Your task to perform on an android device: Open Google Maps Image 0: 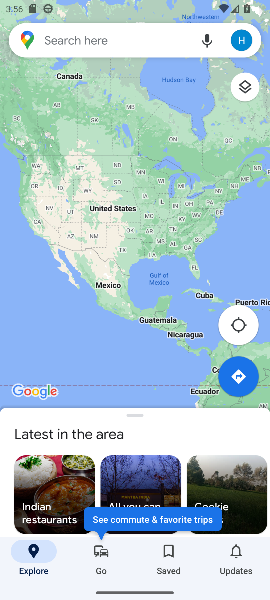
Step 0: press home button
Your task to perform on an android device: Open Google Maps Image 1: 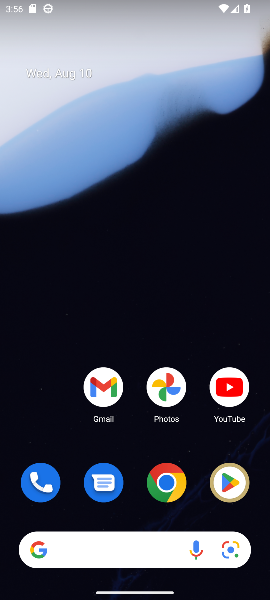
Step 1: drag from (132, 507) to (167, 83)
Your task to perform on an android device: Open Google Maps Image 2: 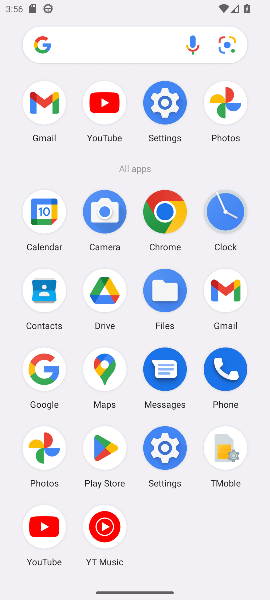
Step 2: click (42, 451)
Your task to perform on an android device: Open Google Maps Image 3: 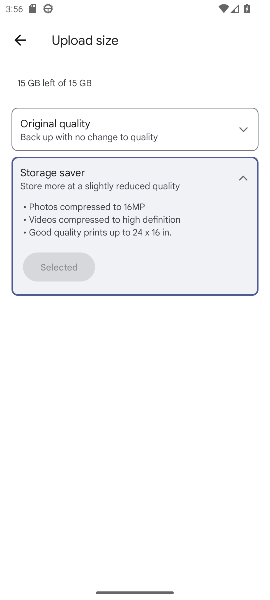
Step 3: click (24, 39)
Your task to perform on an android device: Open Google Maps Image 4: 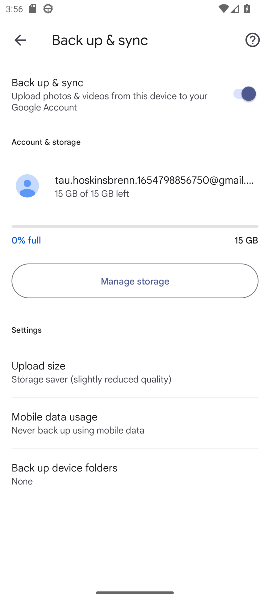
Step 4: click (24, 39)
Your task to perform on an android device: Open Google Maps Image 5: 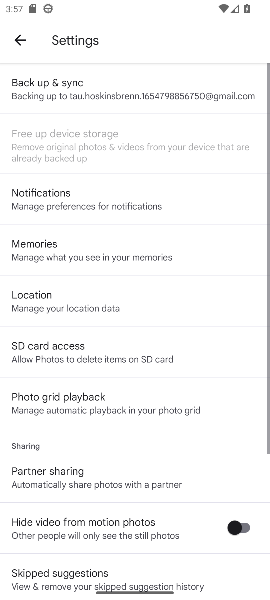
Step 5: click (24, 39)
Your task to perform on an android device: Open Google Maps Image 6: 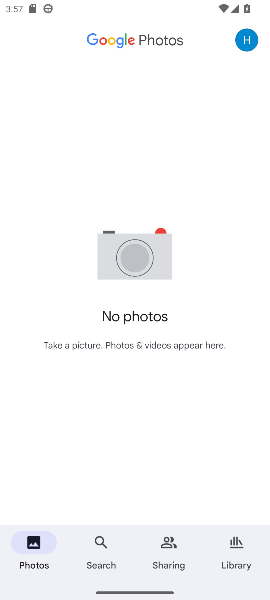
Step 6: press home button
Your task to perform on an android device: Open Google Maps Image 7: 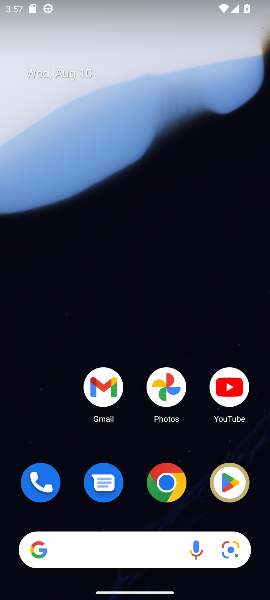
Step 7: drag from (134, 507) to (195, 92)
Your task to perform on an android device: Open Google Maps Image 8: 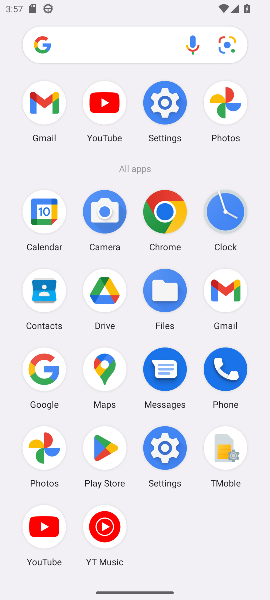
Step 8: click (101, 366)
Your task to perform on an android device: Open Google Maps Image 9: 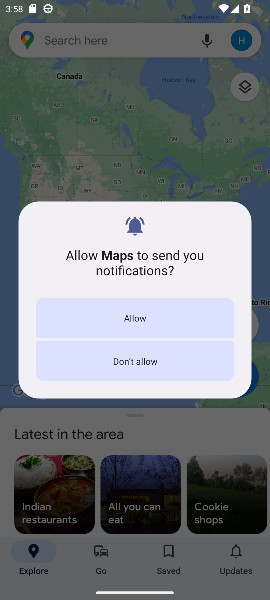
Step 9: click (139, 323)
Your task to perform on an android device: Open Google Maps Image 10: 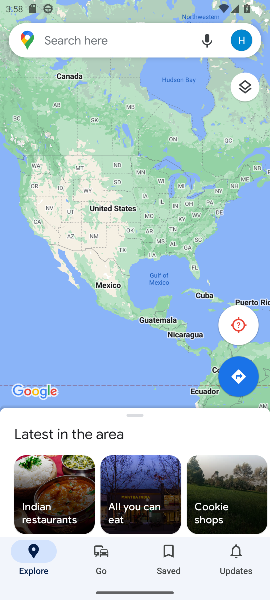
Step 10: task complete